Your task to perform on an android device: Search for vegetarian restaurants on Maps Image 0: 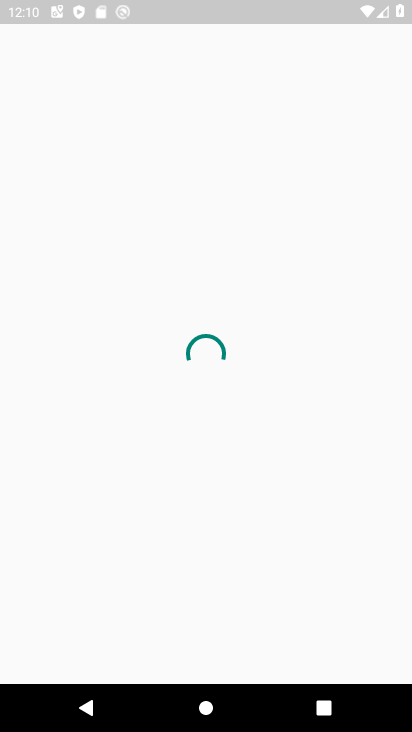
Step 0: click (52, 346)
Your task to perform on an android device: Search for vegetarian restaurants on Maps Image 1: 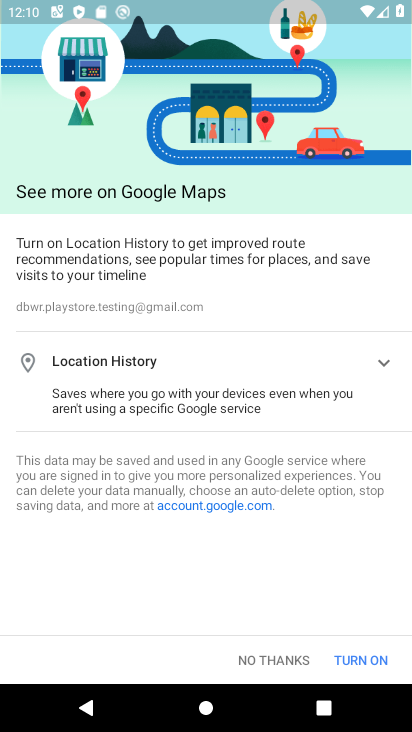
Step 1: click (355, 658)
Your task to perform on an android device: Search for vegetarian restaurants on Maps Image 2: 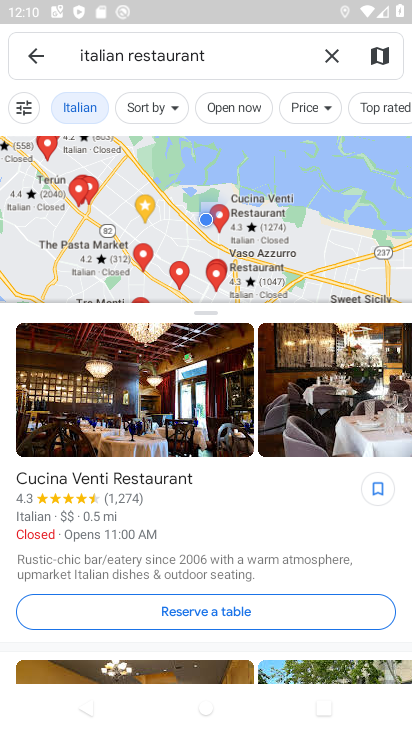
Step 2: click (284, 52)
Your task to perform on an android device: Search for vegetarian restaurants on Maps Image 3: 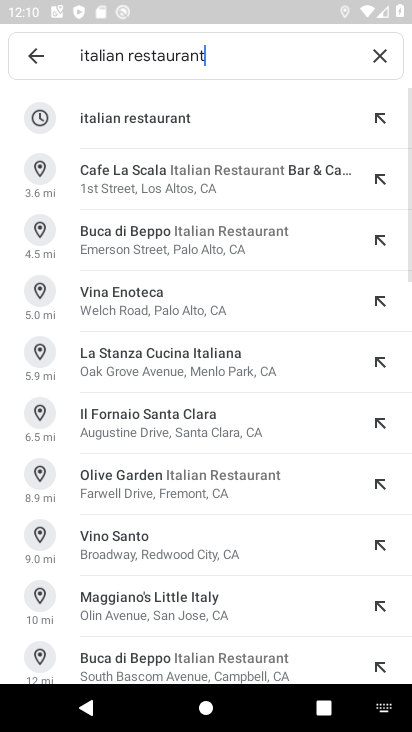
Step 3: click (386, 58)
Your task to perform on an android device: Search for vegetarian restaurants on Maps Image 4: 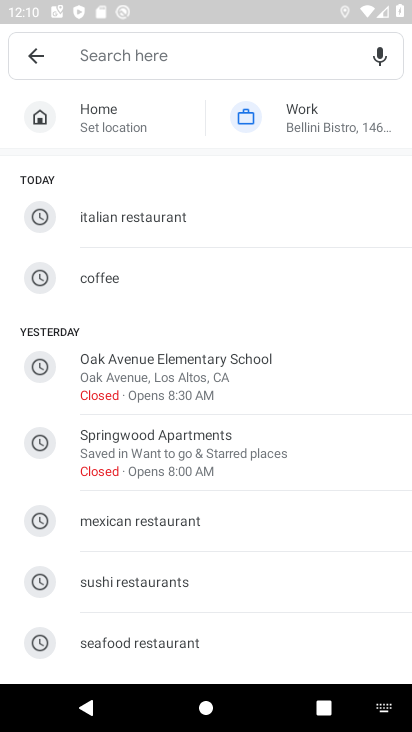
Step 4: drag from (253, 634) to (255, 397)
Your task to perform on an android device: Search for vegetarian restaurants on Maps Image 5: 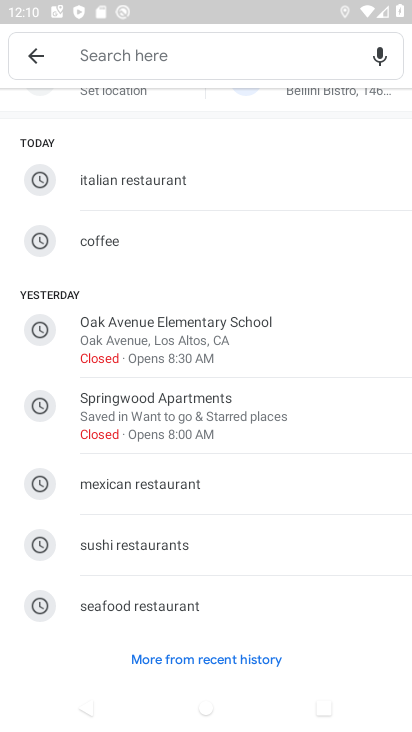
Step 5: click (275, 63)
Your task to perform on an android device: Search for vegetarian restaurants on Maps Image 6: 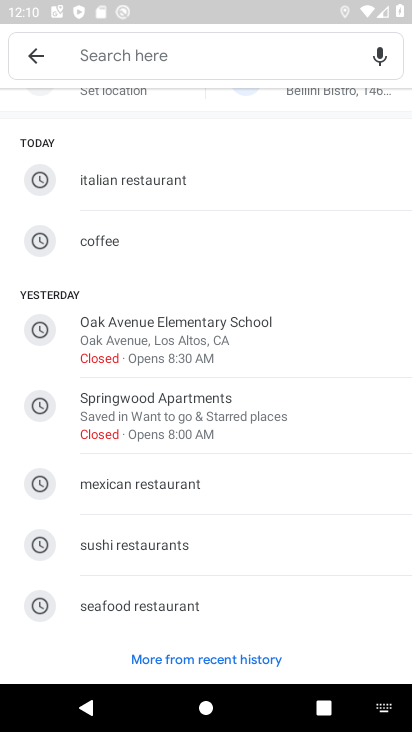
Step 6: type "vegetarian"
Your task to perform on an android device: Search for vegetarian restaurants on Maps Image 7: 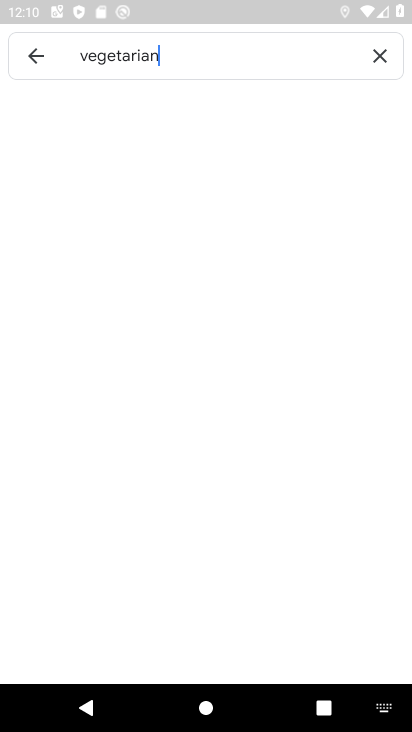
Step 7: type ""
Your task to perform on an android device: Search for vegetarian restaurants on Maps Image 8: 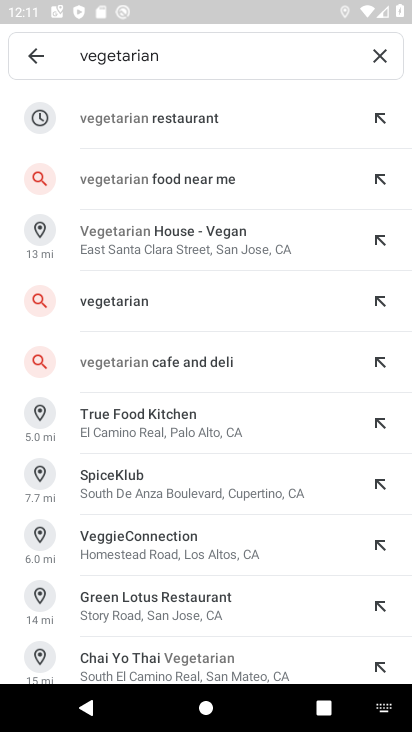
Step 8: click (218, 117)
Your task to perform on an android device: Search for vegetarian restaurants on Maps Image 9: 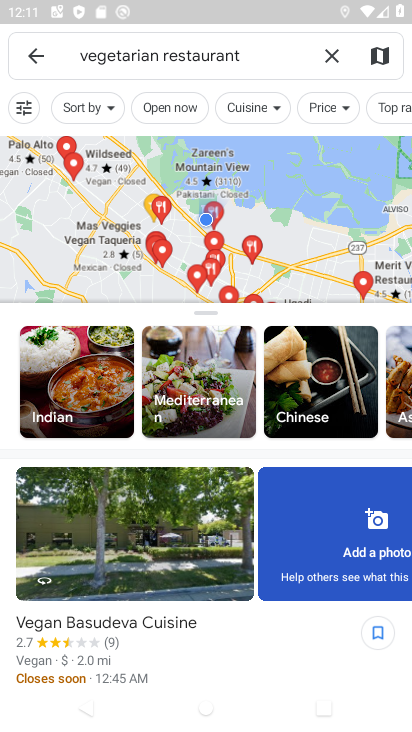
Step 9: task complete